Your task to perform on an android device: turn off priority inbox in the gmail app Image 0: 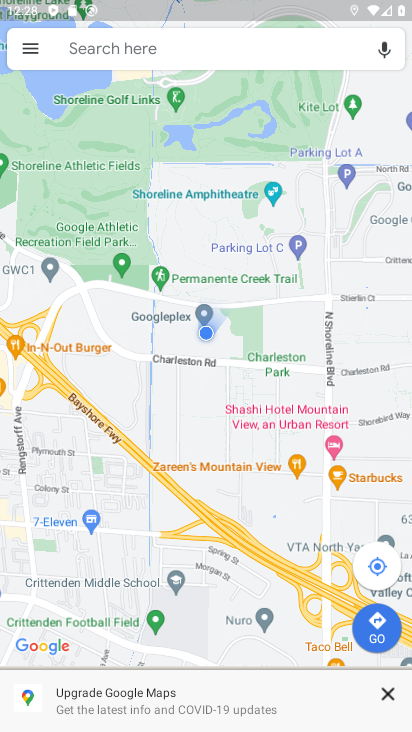
Step 0: press home button
Your task to perform on an android device: turn off priority inbox in the gmail app Image 1: 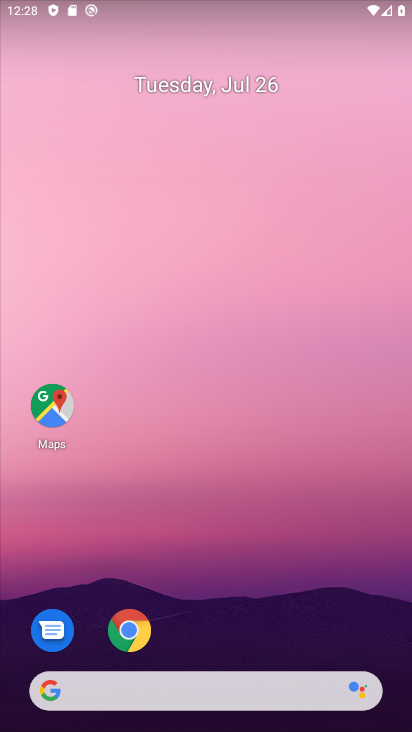
Step 1: drag from (369, 632) to (299, 121)
Your task to perform on an android device: turn off priority inbox in the gmail app Image 2: 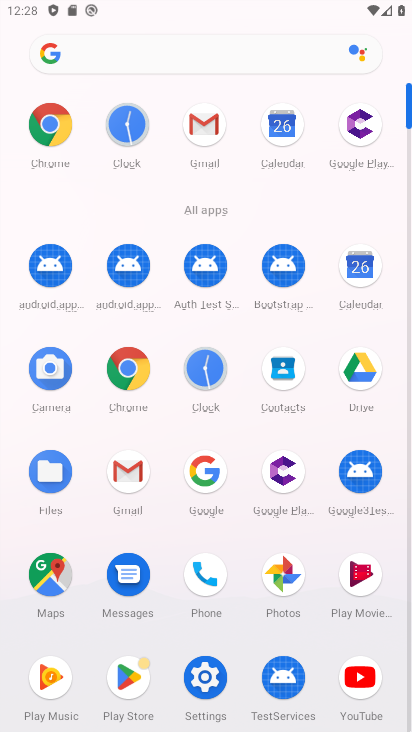
Step 2: click (128, 471)
Your task to perform on an android device: turn off priority inbox in the gmail app Image 3: 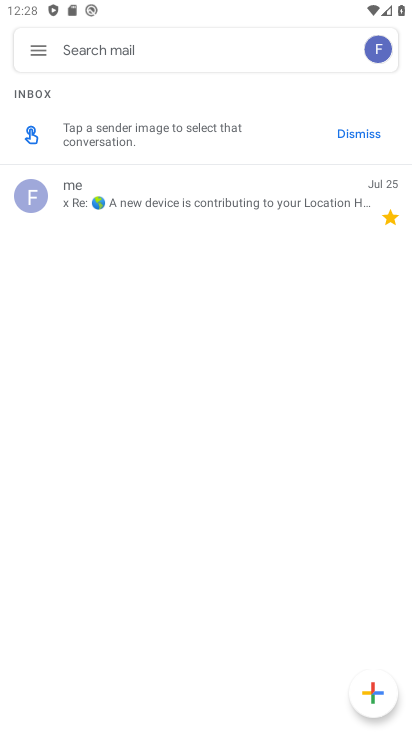
Step 3: click (38, 57)
Your task to perform on an android device: turn off priority inbox in the gmail app Image 4: 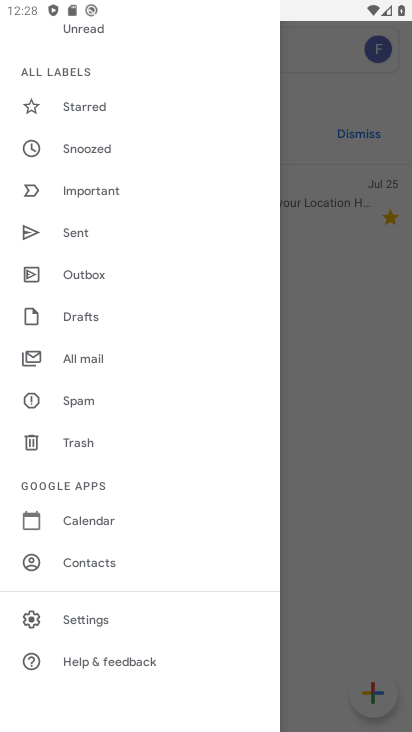
Step 4: click (94, 612)
Your task to perform on an android device: turn off priority inbox in the gmail app Image 5: 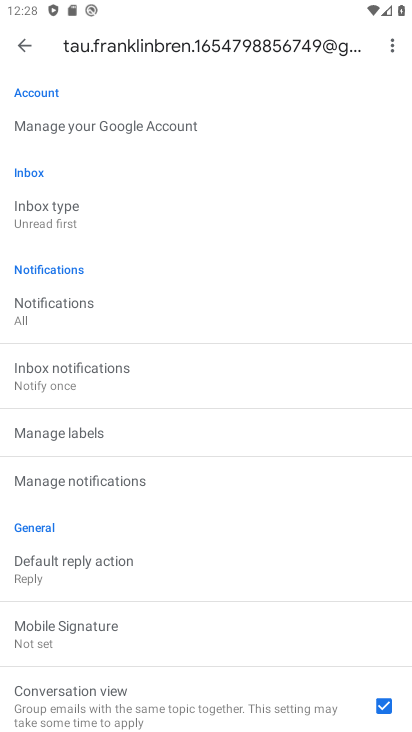
Step 5: click (55, 217)
Your task to perform on an android device: turn off priority inbox in the gmail app Image 6: 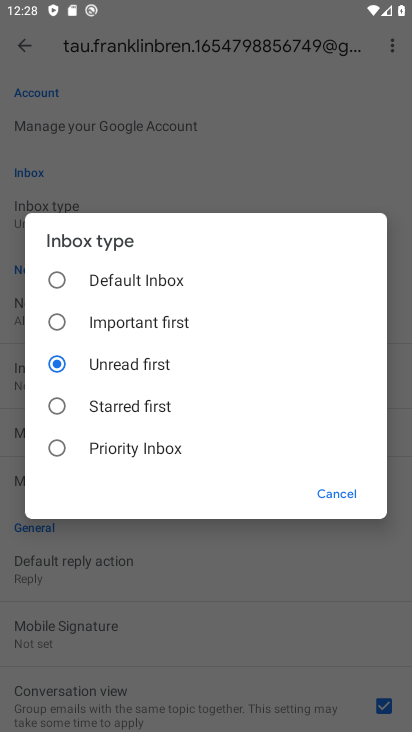
Step 6: task complete